Your task to perform on an android device: Is it going to rain today? Image 0: 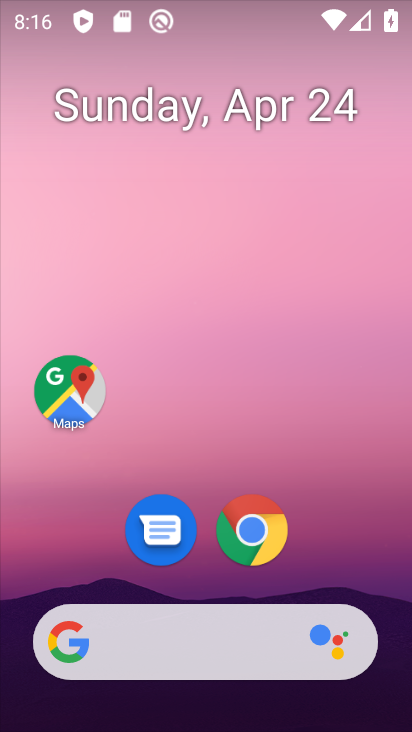
Step 0: drag from (2, 280) to (410, 233)
Your task to perform on an android device: Is it going to rain today? Image 1: 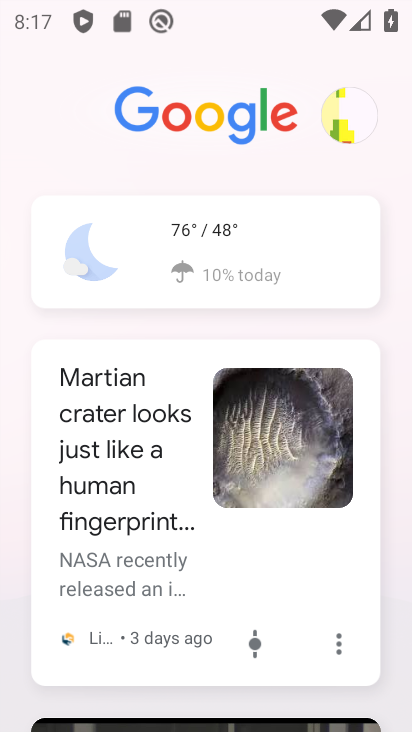
Step 1: click (298, 298)
Your task to perform on an android device: Is it going to rain today? Image 2: 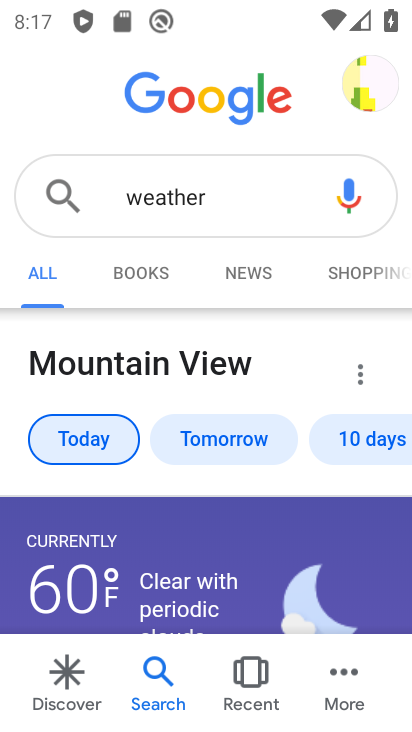
Step 2: task complete